Your task to perform on an android device: toggle improve location accuracy Image 0: 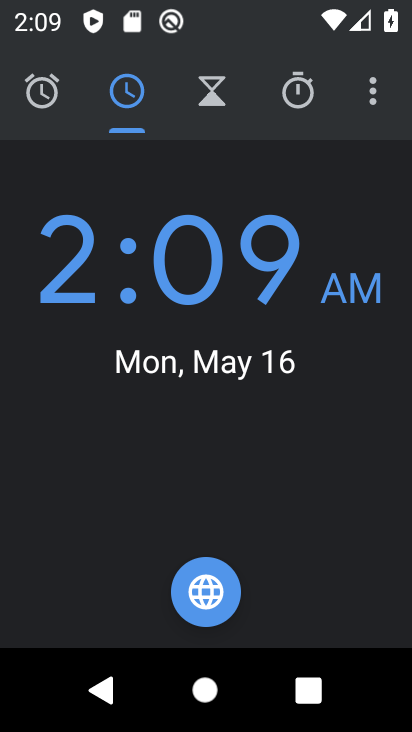
Step 0: press home button
Your task to perform on an android device: toggle improve location accuracy Image 1: 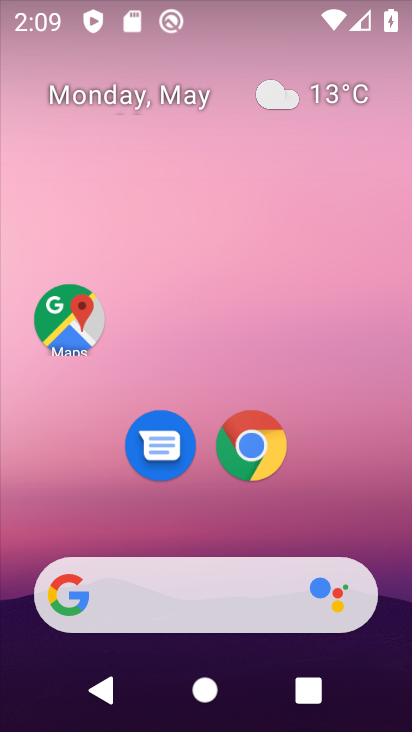
Step 1: drag from (357, 518) to (366, 4)
Your task to perform on an android device: toggle improve location accuracy Image 2: 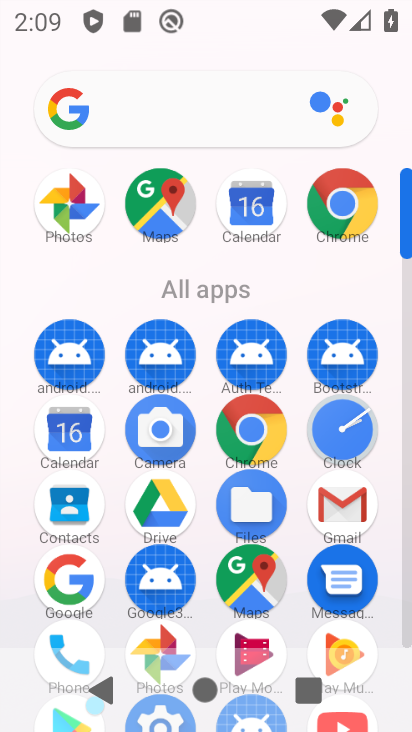
Step 2: drag from (211, 588) to (199, 271)
Your task to perform on an android device: toggle improve location accuracy Image 3: 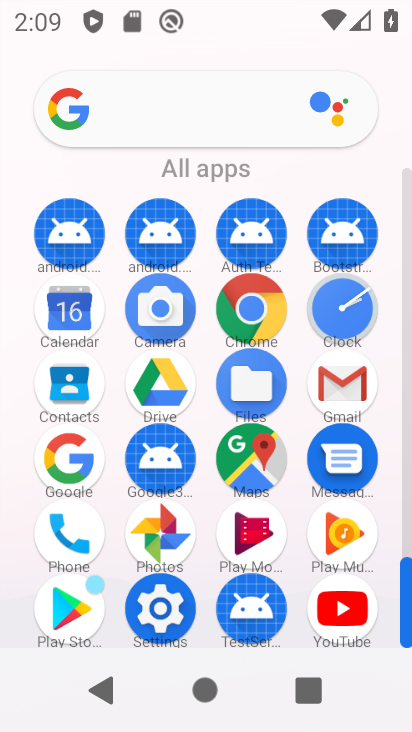
Step 3: click (169, 632)
Your task to perform on an android device: toggle improve location accuracy Image 4: 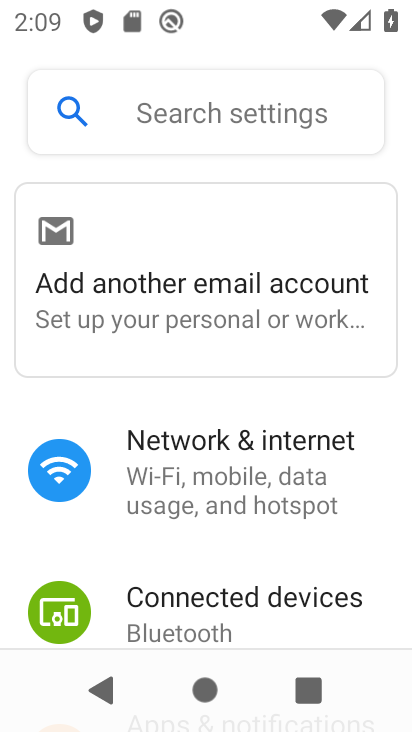
Step 4: drag from (270, 576) to (262, 64)
Your task to perform on an android device: toggle improve location accuracy Image 5: 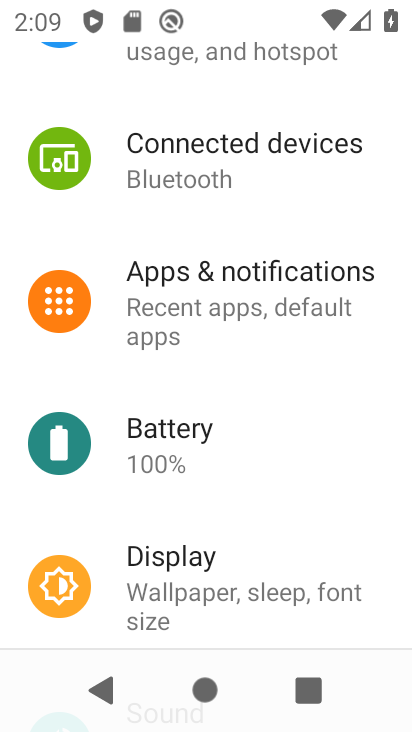
Step 5: drag from (275, 549) to (267, 129)
Your task to perform on an android device: toggle improve location accuracy Image 6: 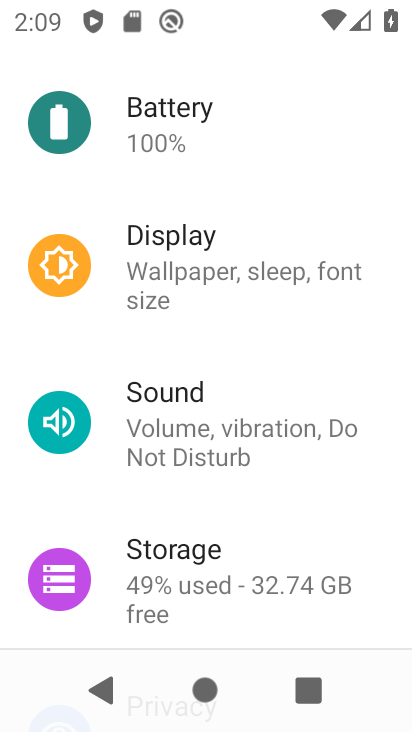
Step 6: drag from (244, 388) to (243, 109)
Your task to perform on an android device: toggle improve location accuracy Image 7: 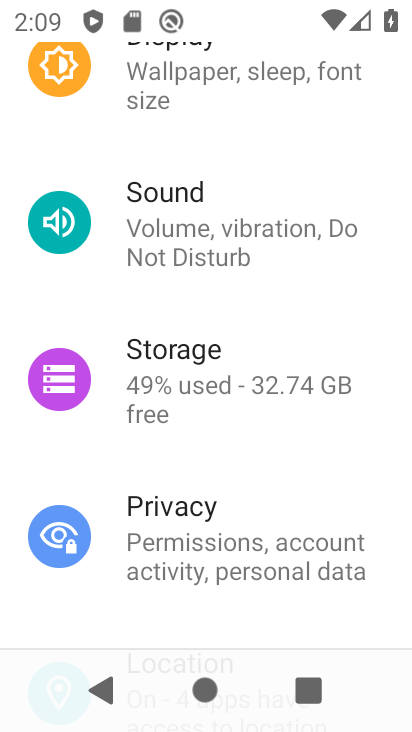
Step 7: drag from (219, 632) to (228, 287)
Your task to perform on an android device: toggle improve location accuracy Image 8: 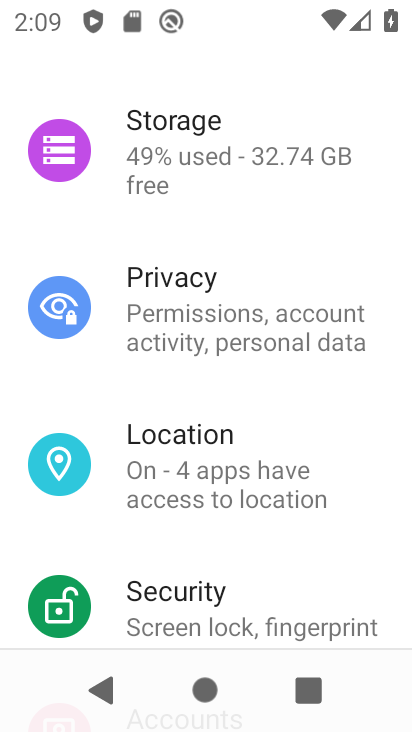
Step 8: click (195, 468)
Your task to perform on an android device: toggle improve location accuracy Image 9: 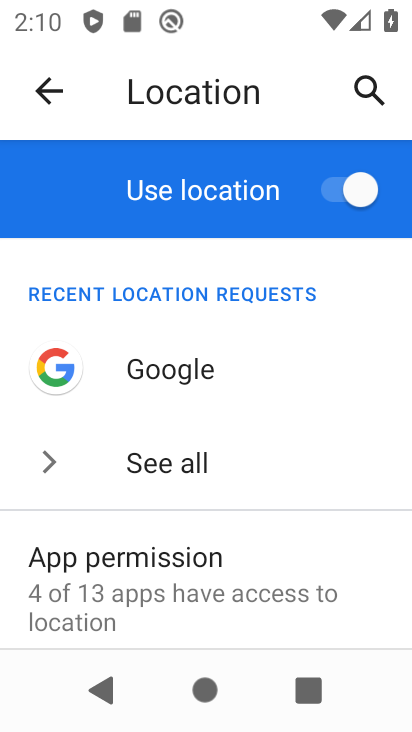
Step 9: drag from (296, 643) to (287, 171)
Your task to perform on an android device: toggle improve location accuracy Image 10: 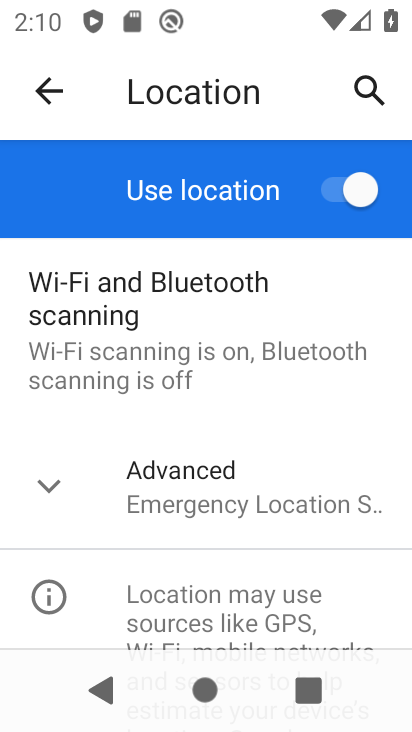
Step 10: click (162, 494)
Your task to perform on an android device: toggle improve location accuracy Image 11: 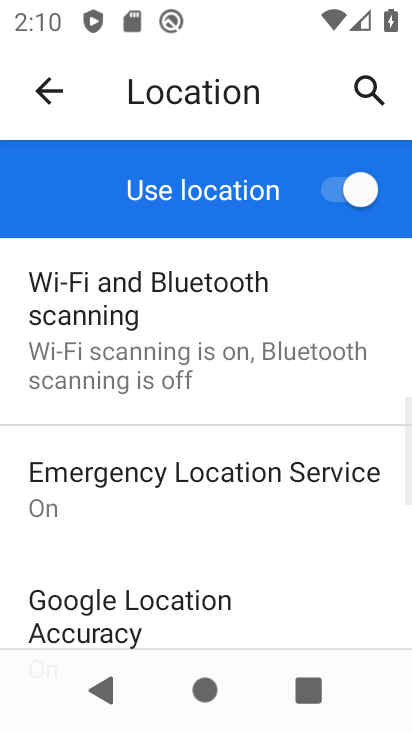
Step 11: drag from (206, 650) to (233, 218)
Your task to perform on an android device: toggle improve location accuracy Image 12: 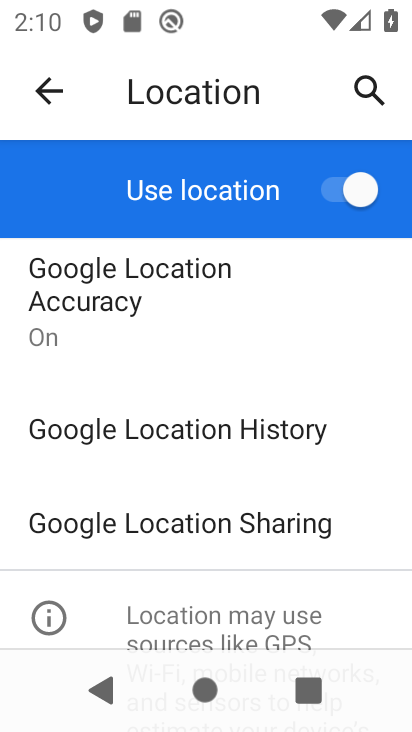
Step 12: click (209, 299)
Your task to perform on an android device: toggle improve location accuracy Image 13: 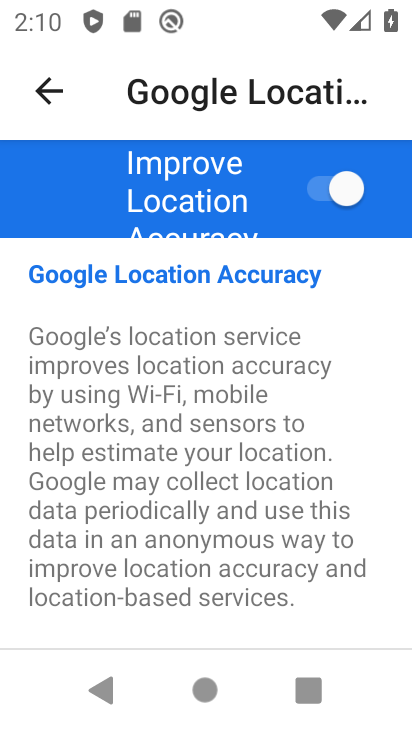
Step 13: click (373, 189)
Your task to perform on an android device: toggle improve location accuracy Image 14: 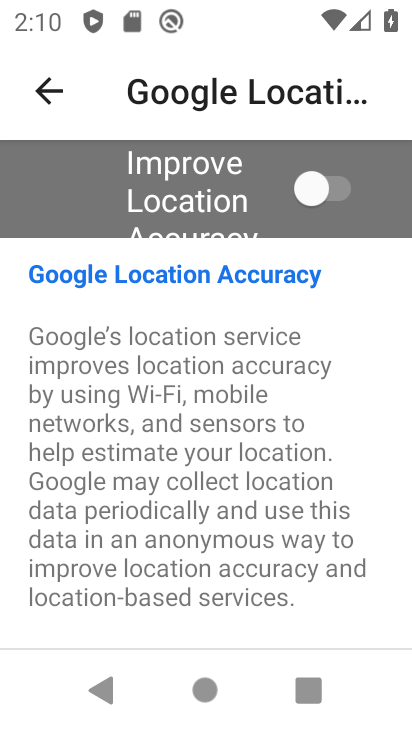
Step 14: task complete